Your task to perform on an android device: choose inbox layout in the gmail app Image 0: 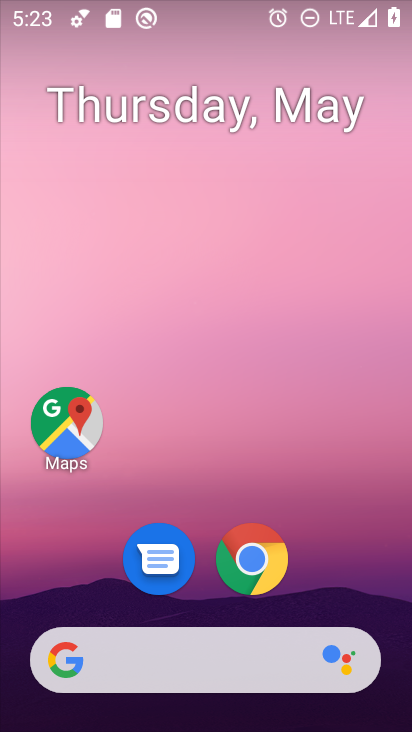
Step 0: drag from (341, 559) to (207, 33)
Your task to perform on an android device: choose inbox layout in the gmail app Image 1: 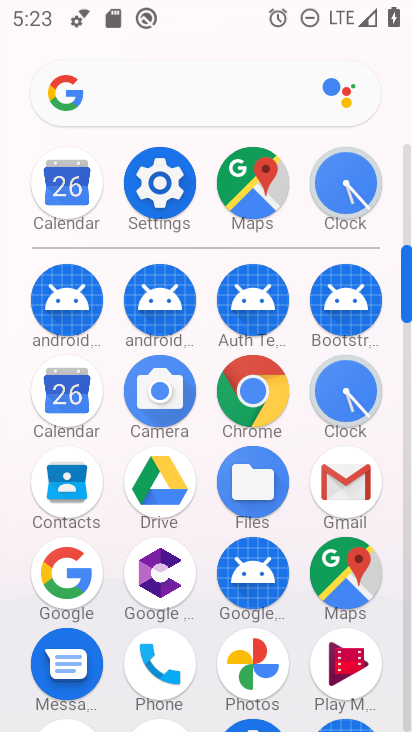
Step 1: click (353, 480)
Your task to perform on an android device: choose inbox layout in the gmail app Image 2: 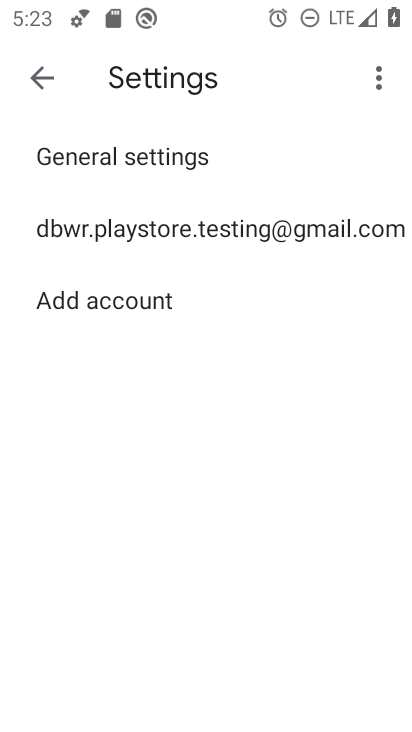
Step 2: click (97, 216)
Your task to perform on an android device: choose inbox layout in the gmail app Image 3: 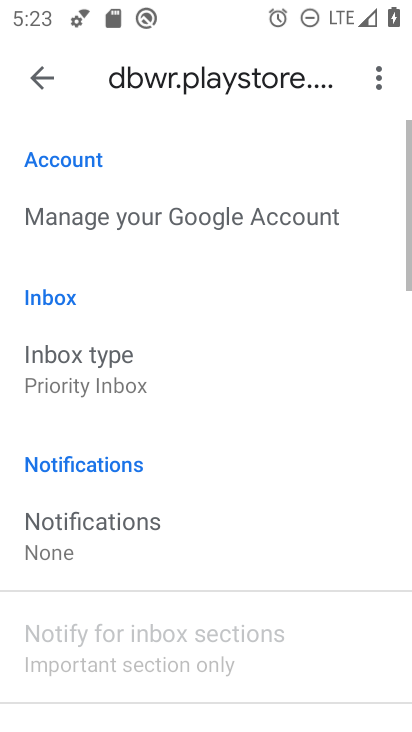
Step 3: click (95, 353)
Your task to perform on an android device: choose inbox layout in the gmail app Image 4: 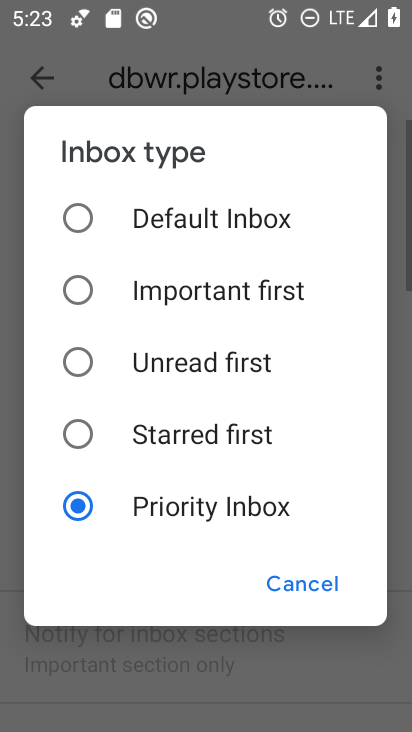
Step 4: click (182, 308)
Your task to perform on an android device: choose inbox layout in the gmail app Image 5: 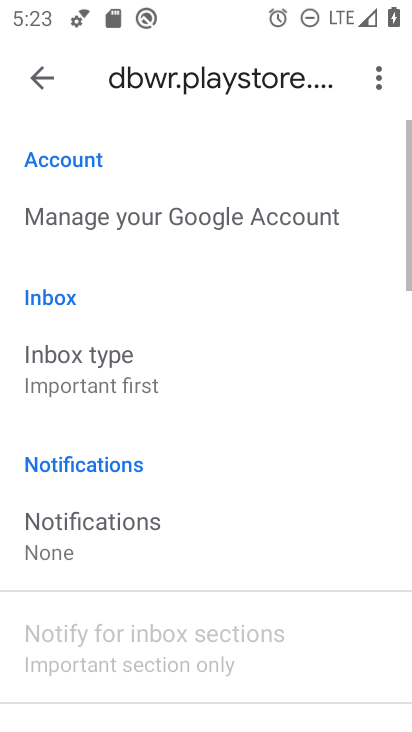
Step 5: task complete